Your task to perform on an android device: star an email in the gmail app Image 0: 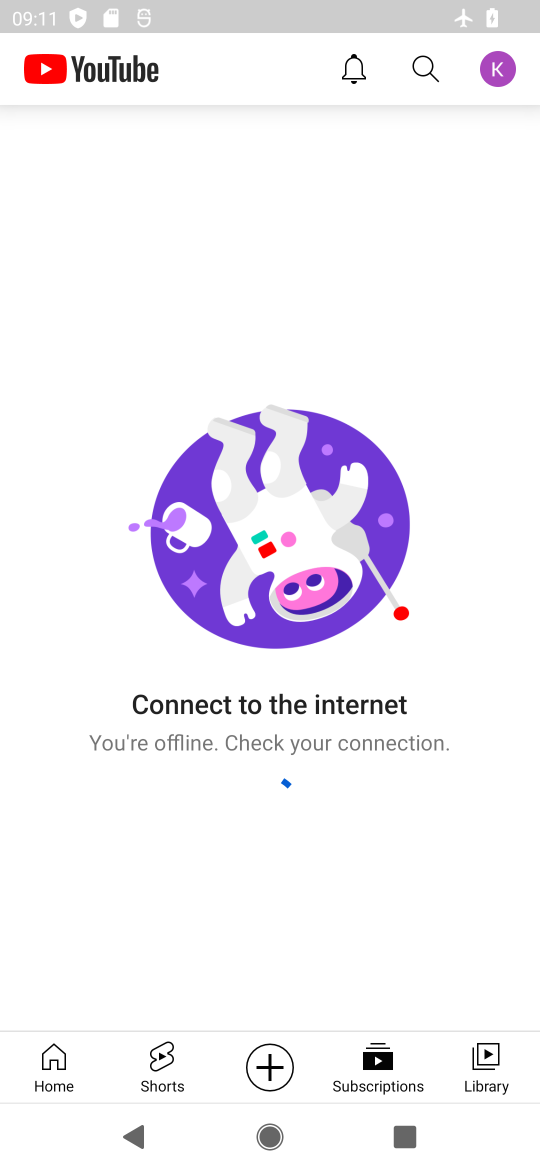
Step 0: press home button
Your task to perform on an android device: star an email in the gmail app Image 1: 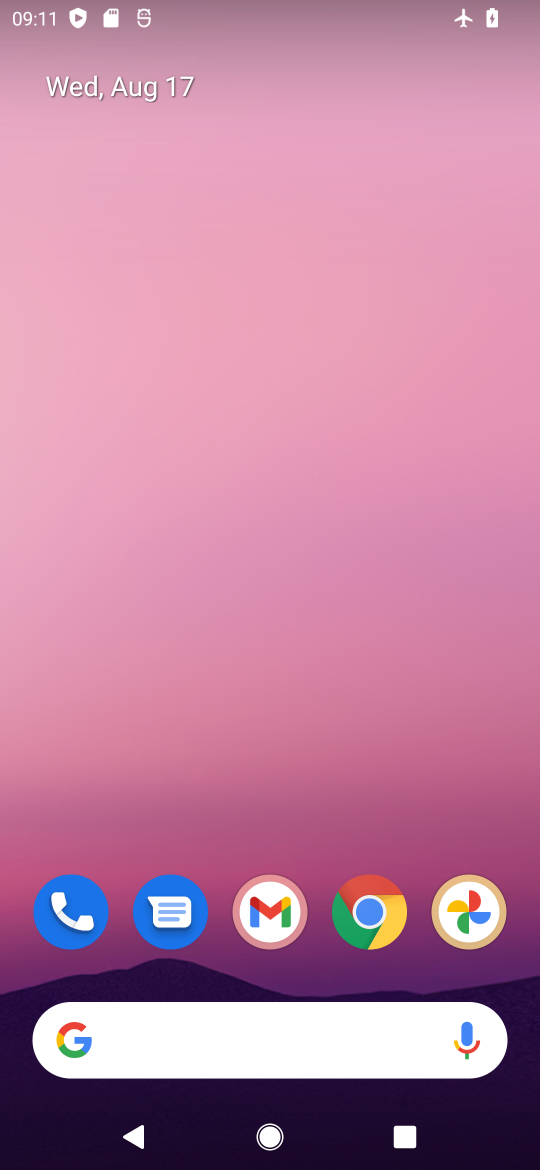
Step 1: drag from (249, 627) to (228, 343)
Your task to perform on an android device: star an email in the gmail app Image 2: 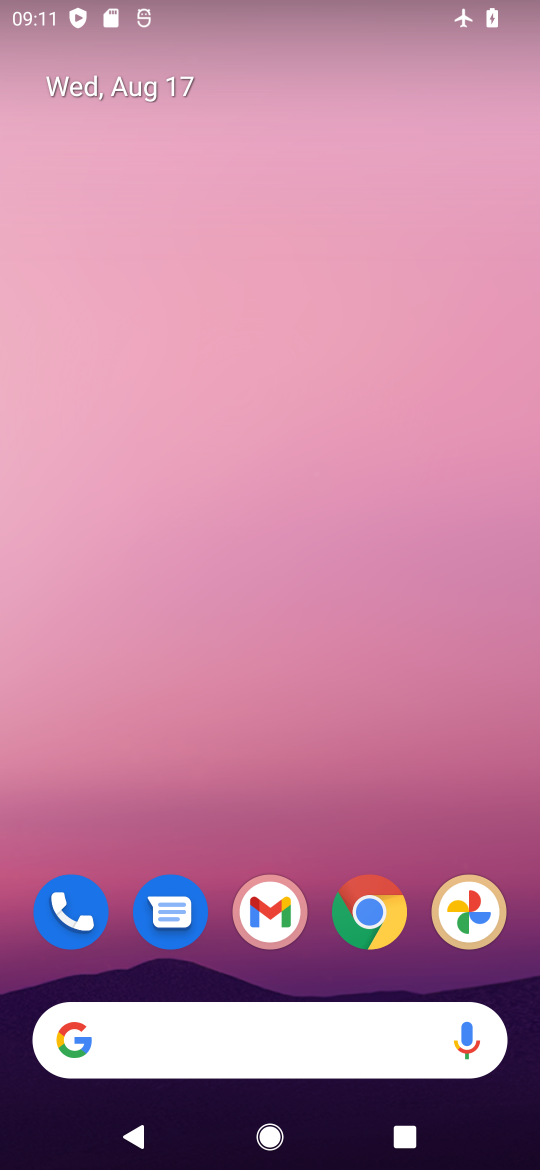
Step 2: click (251, 922)
Your task to perform on an android device: star an email in the gmail app Image 3: 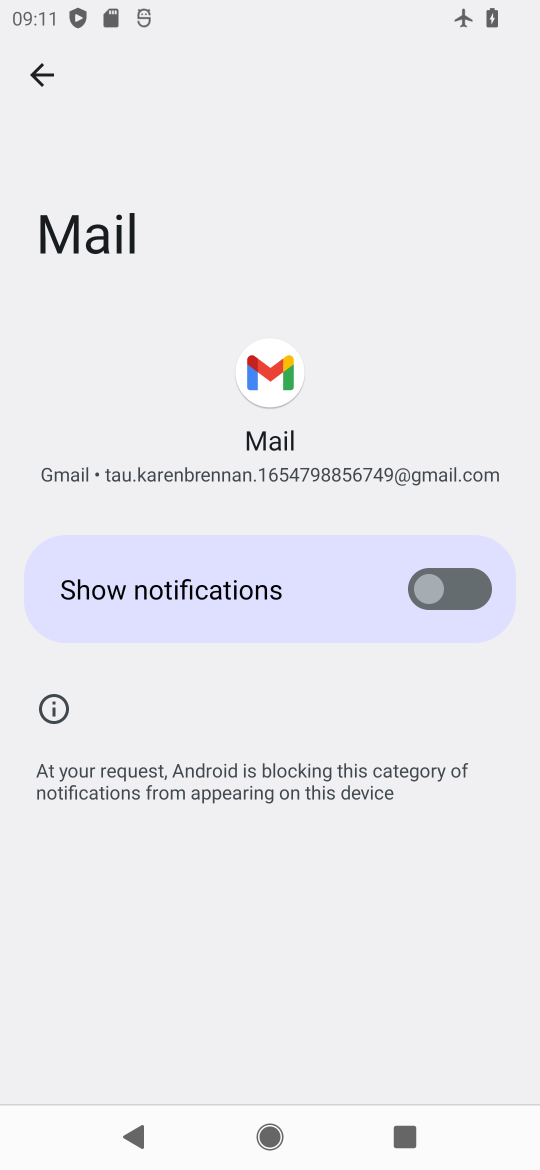
Step 3: click (32, 75)
Your task to perform on an android device: star an email in the gmail app Image 4: 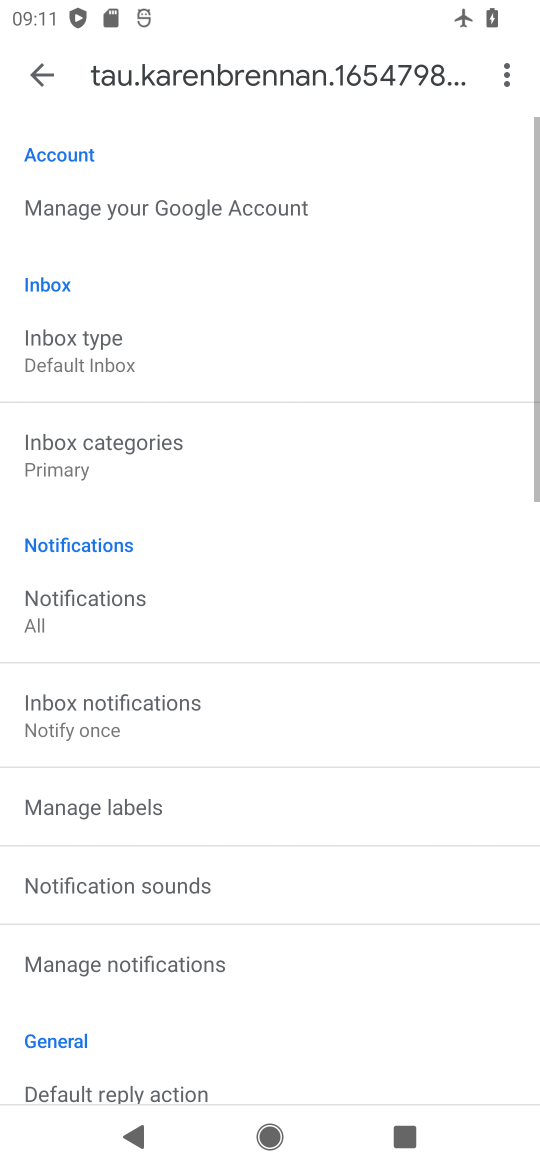
Step 4: click (55, 73)
Your task to perform on an android device: star an email in the gmail app Image 5: 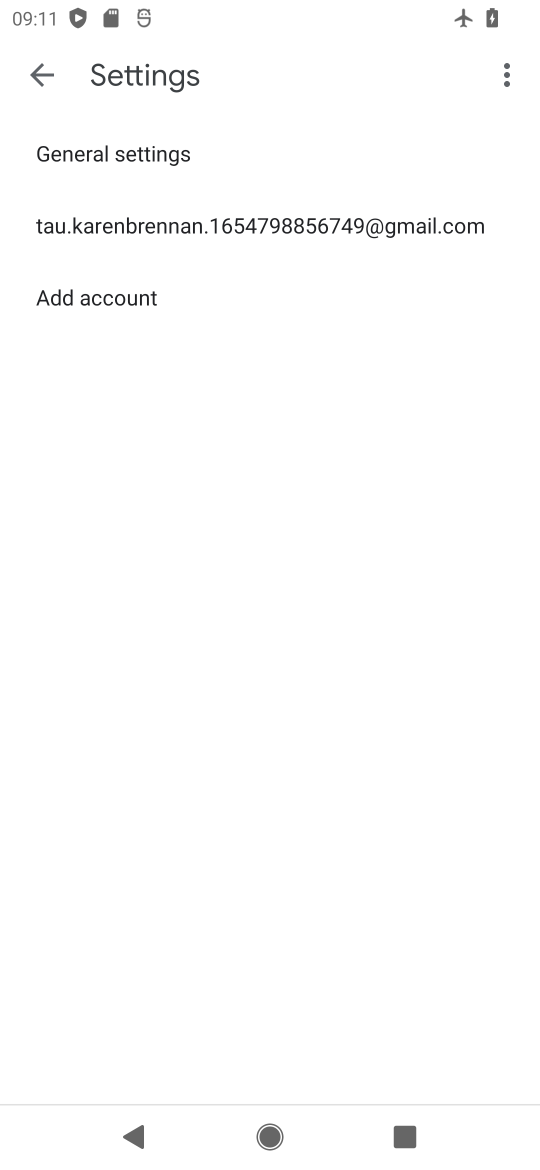
Step 5: click (55, 73)
Your task to perform on an android device: star an email in the gmail app Image 6: 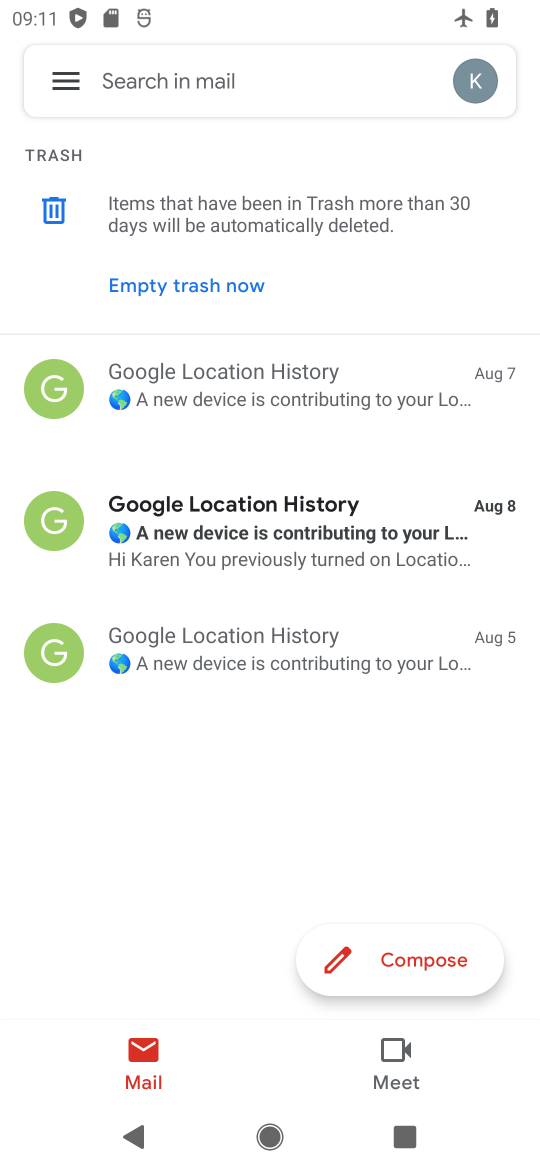
Step 6: click (55, 73)
Your task to perform on an android device: star an email in the gmail app Image 7: 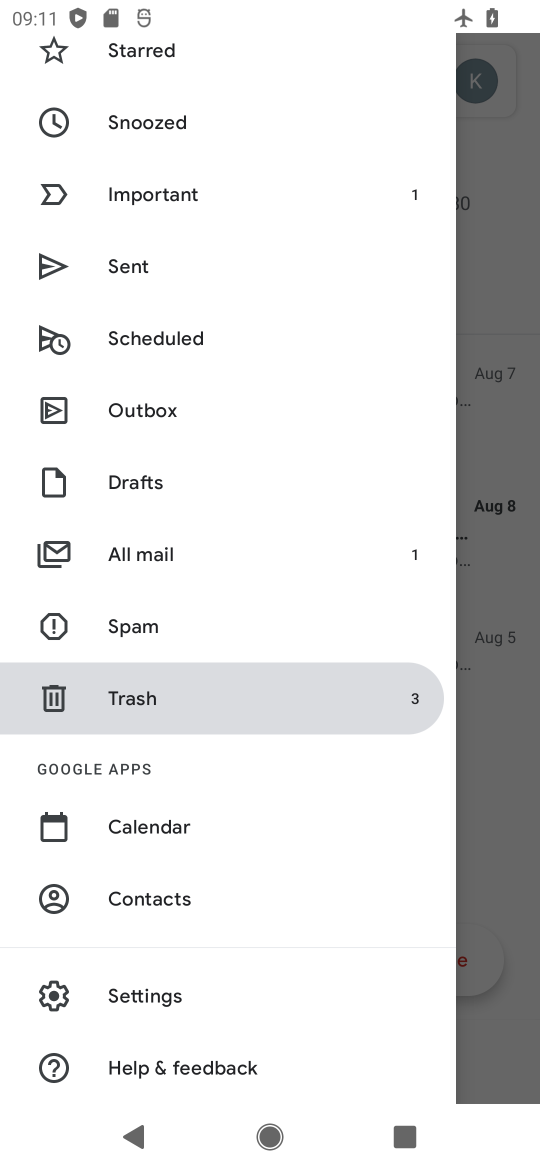
Step 7: drag from (113, 95) to (206, 854)
Your task to perform on an android device: star an email in the gmail app Image 8: 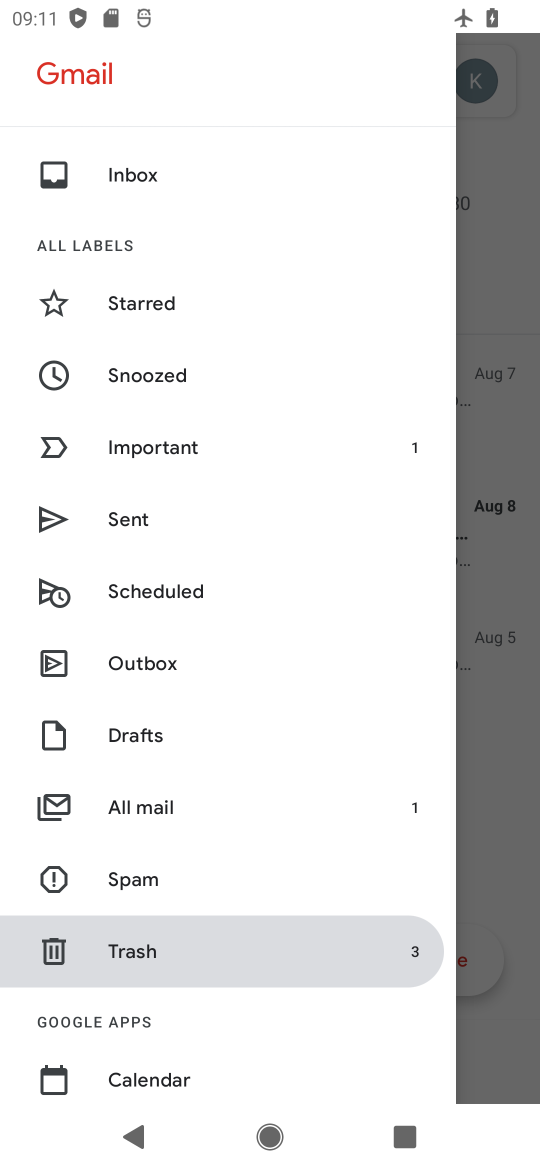
Step 8: click (130, 176)
Your task to perform on an android device: star an email in the gmail app Image 9: 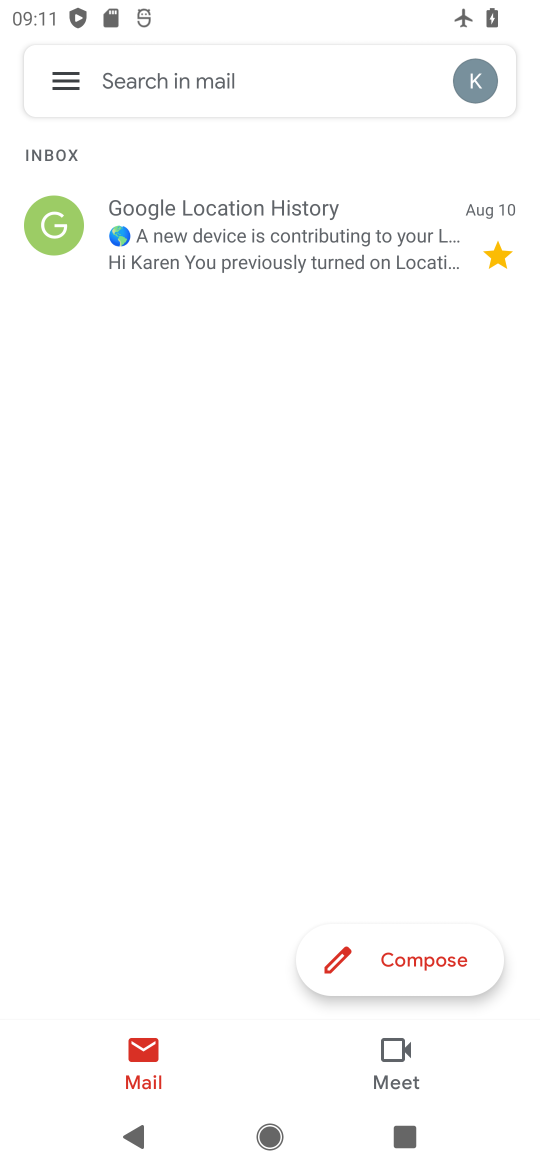
Step 9: task complete